Your task to perform on an android device: Do I have any events this weekend? Image 0: 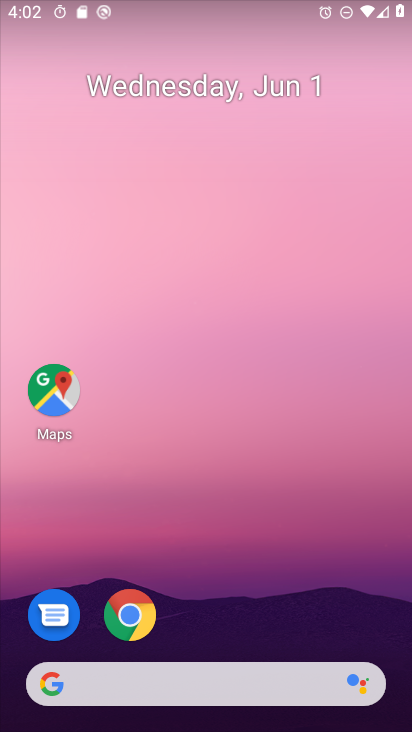
Step 0: drag from (280, 698) to (365, 5)
Your task to perform on an android device: Do I have any events this weekend? Image 1: 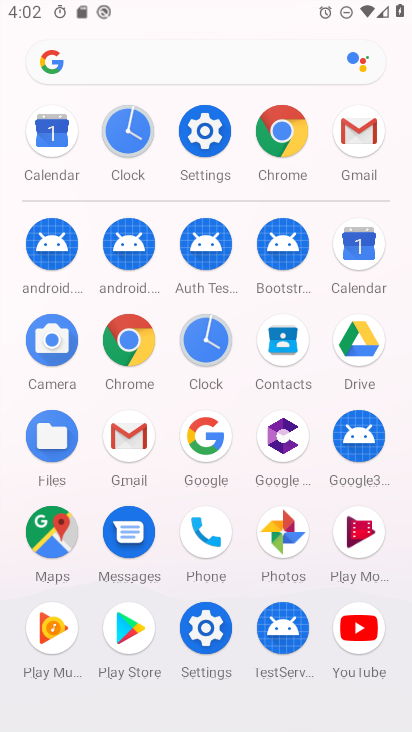
Step 1: click (350, 248)
Your task to perform on an android device: Do I have any events this weekend? Image 2: 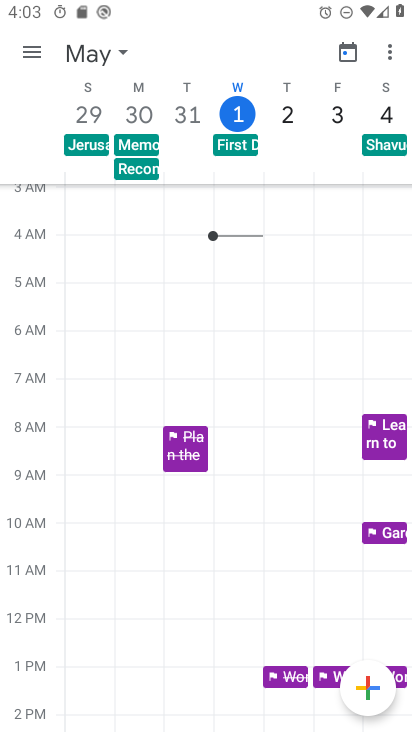
Step 2: click (126, 47)
Your task to perform on an android device: Do I have any events this weekend? Image 3: 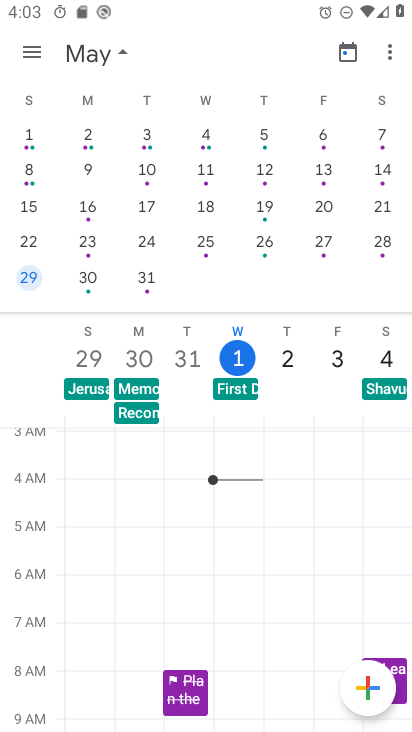
Step 3: drag from (338, 210) to (1, 229)
Your task to perform on an android device: Do I have any events this weekend? Image 4: 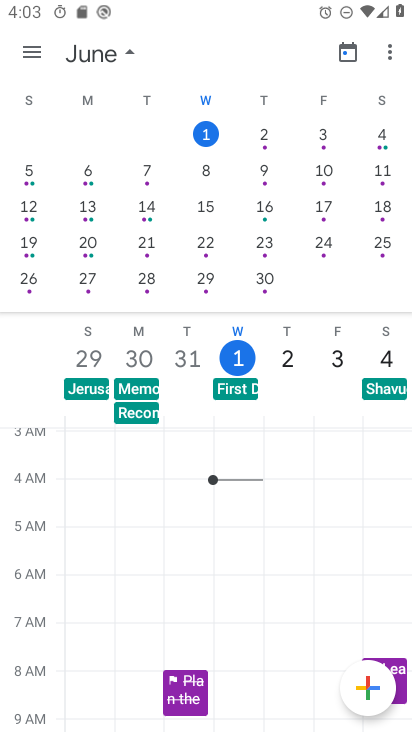
Step 4: click (382, 144)
Your task to perform on an android device: Do I have any events this weekend? Image 5: 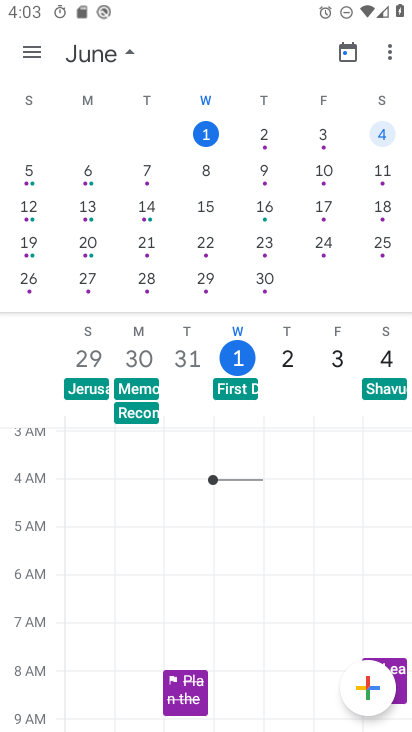
Step 5: click (379, 138)
Your task to perform on an android device: Do I have any events this weekend? Image 6: 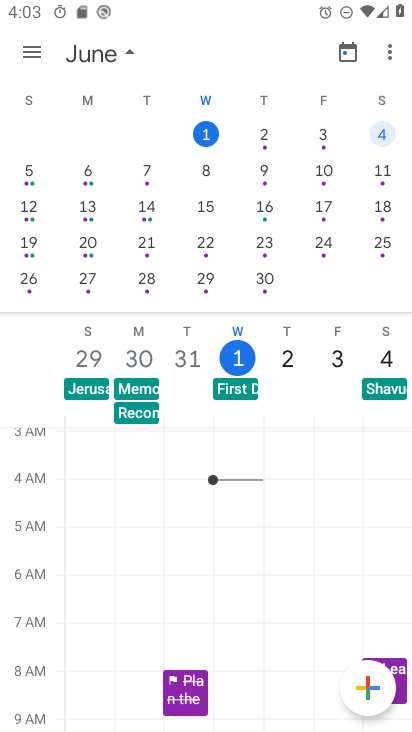
Step 6: click (379, 138)
Your task to perform on an android device: Do I have any events this weekend? Image 7: 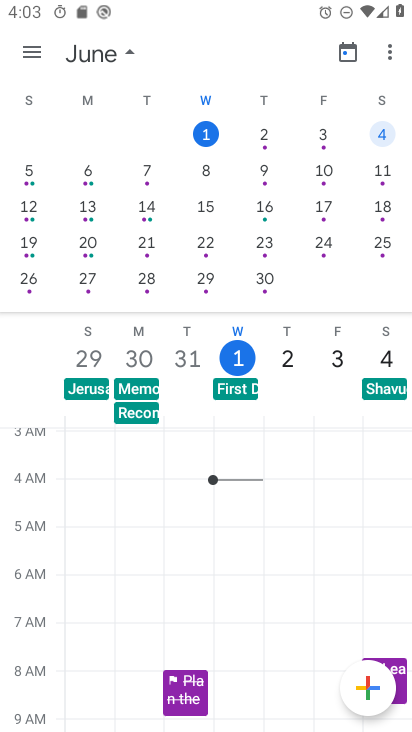
Step 7: task complete